Your task to perform on an android device: Open network settings Image 0: 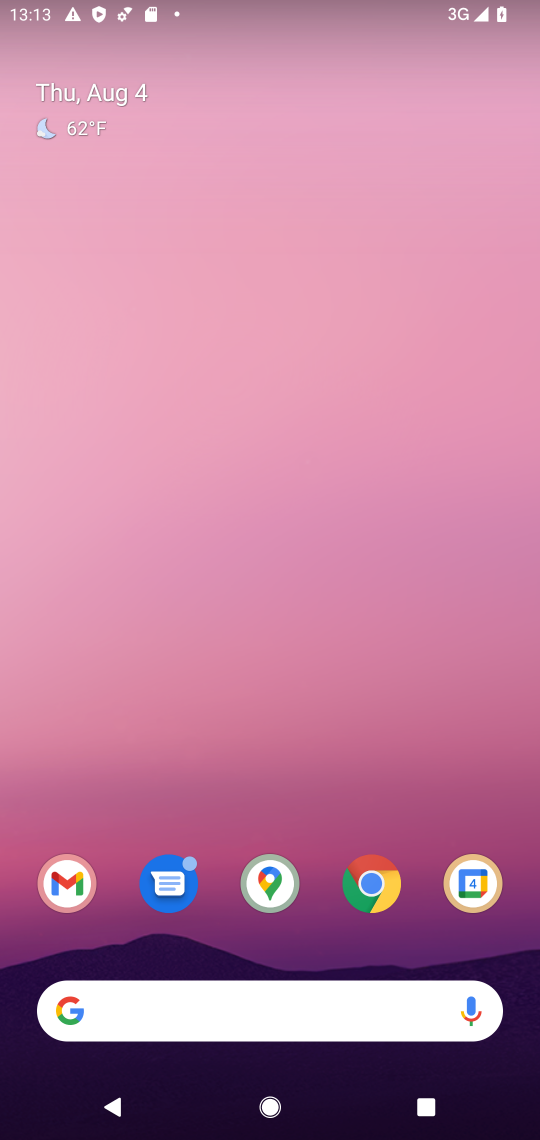
Step 0: drag from (250, 973) to (315, 2)
Your task to perform on an android device: Open network settings Image 1: 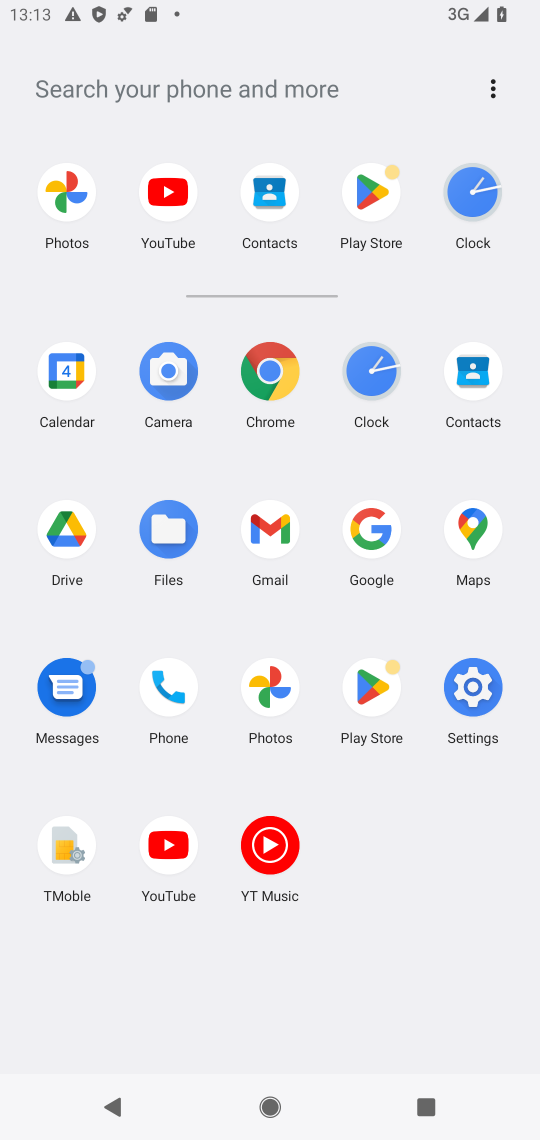
Step 1: drag from (278, 943) to (337, 245)
Your task to perform on an android device: Open network settings Image 2: 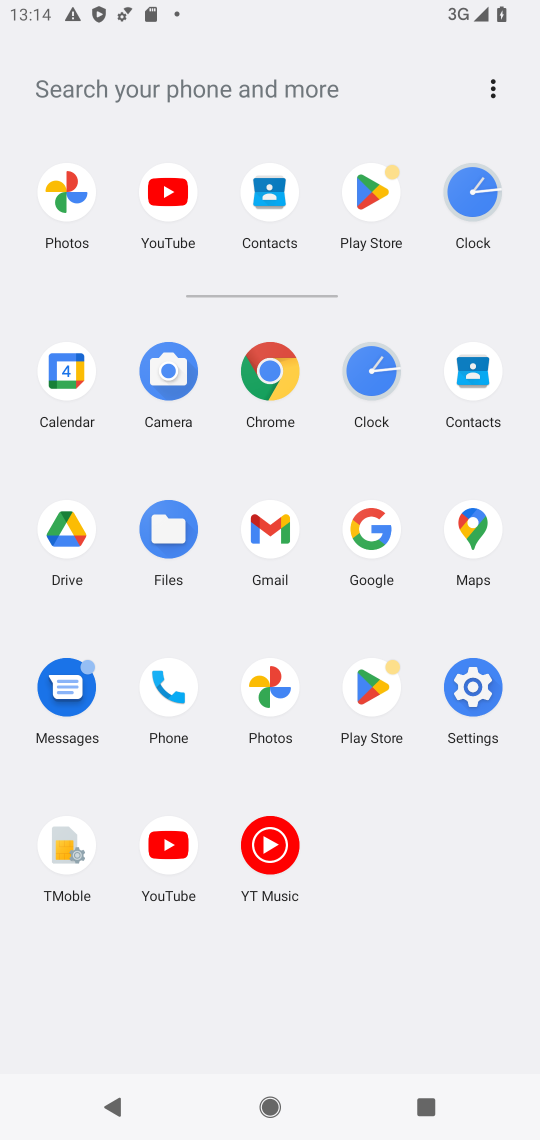
Step 2: click (469, 690)
Your task to perform on an android device: Open network settings Image 3: 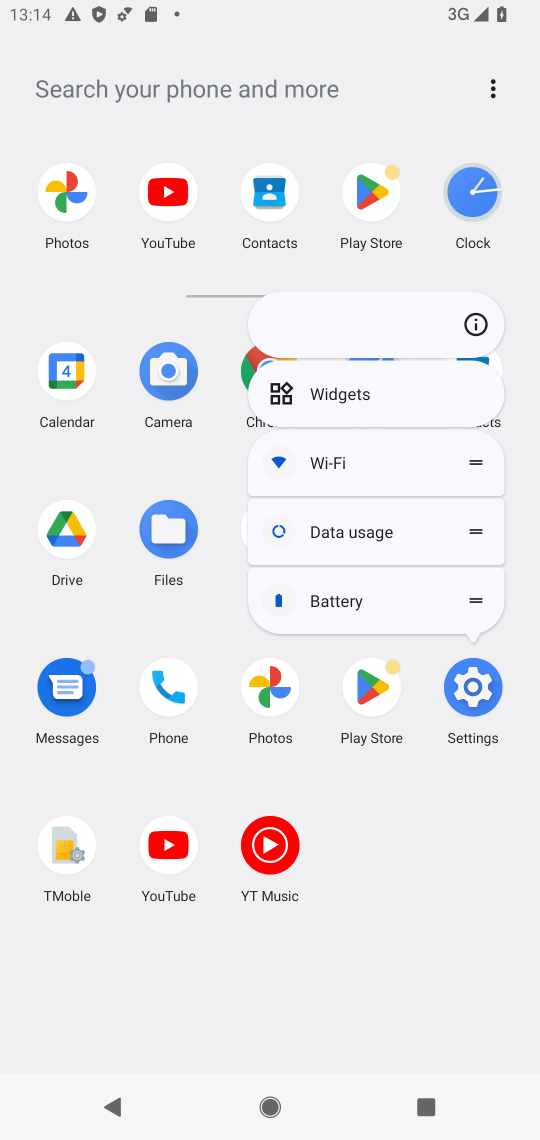
Step 3: click (475, 314)
Your task to perform on an android device: Open network settings Image 4: 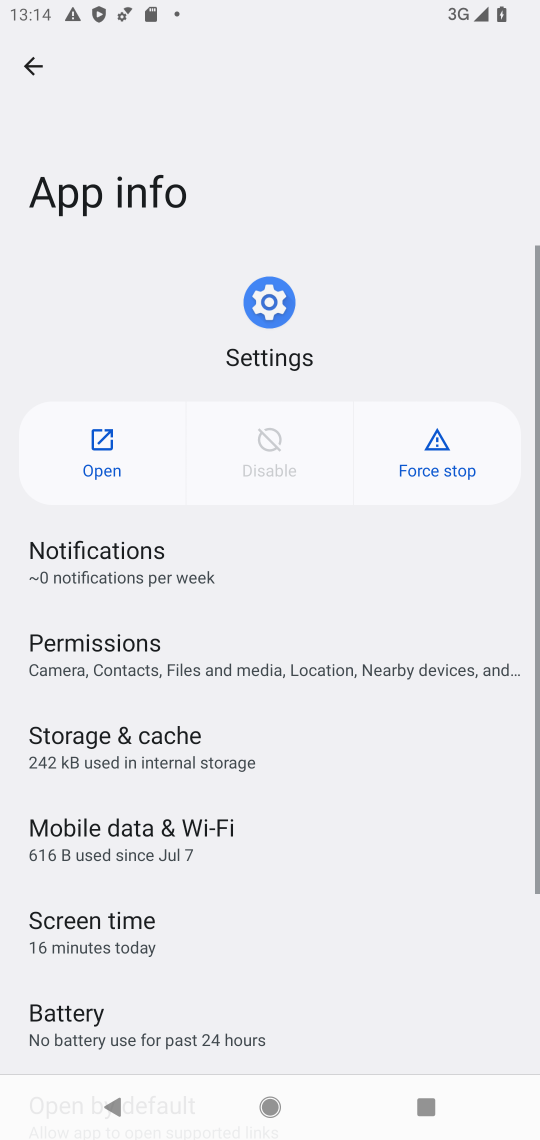
Step 4: click (80, 451)
Your task to perform on an android device: Open network settings Image 5: 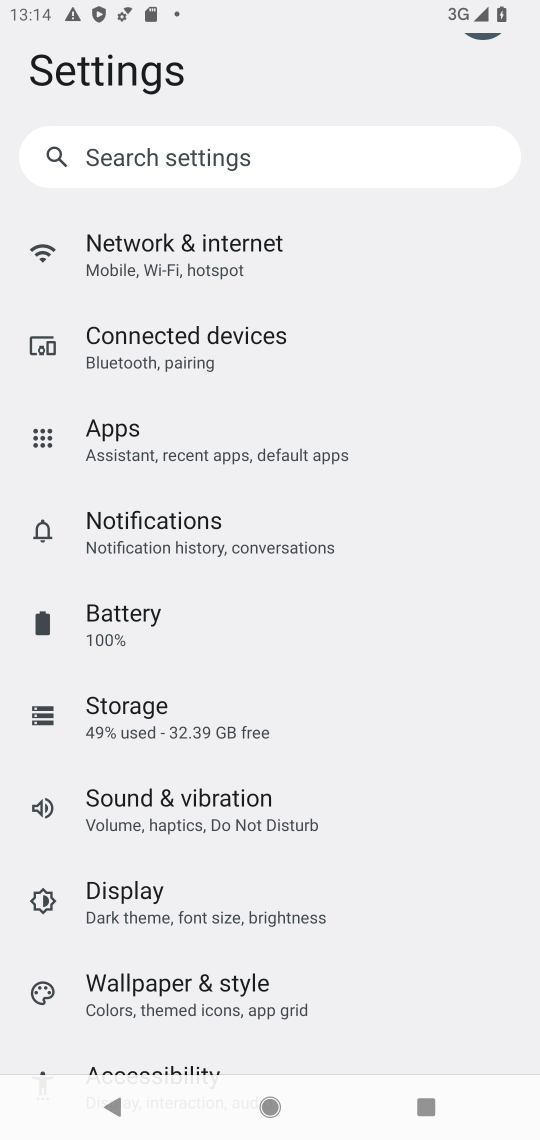
Step 5: drag from (289, 965) to (391, 417)
Your task to perform on an android device: Open network settings Image 6: 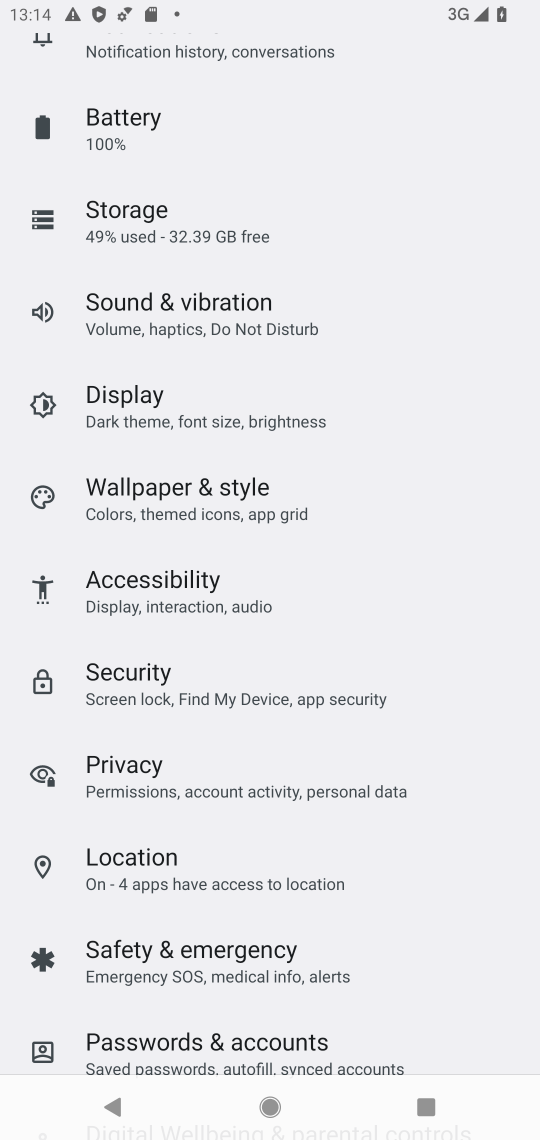
Step 6: drag from (265, 352) to (530, 903)
Your task to perform on an android device: Open network settings Image 7: 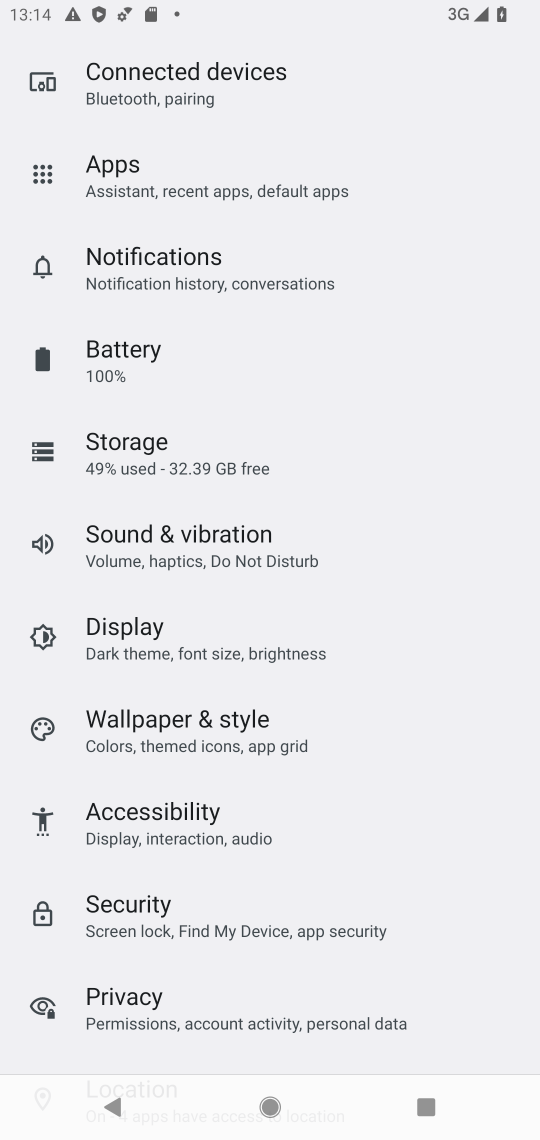
Step 7: drag from (195, 160) to (198, 881)
Your task to perform on an android device: Open network settings Image 8: 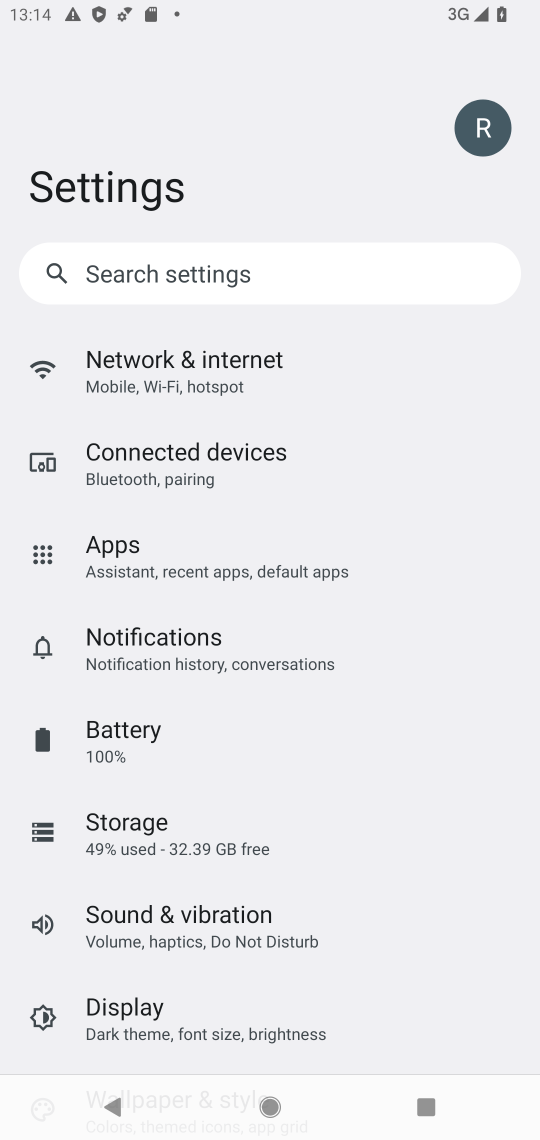
Step 8: click (192, 386)
Your task to perform on an android device: Open network settings Image 9: 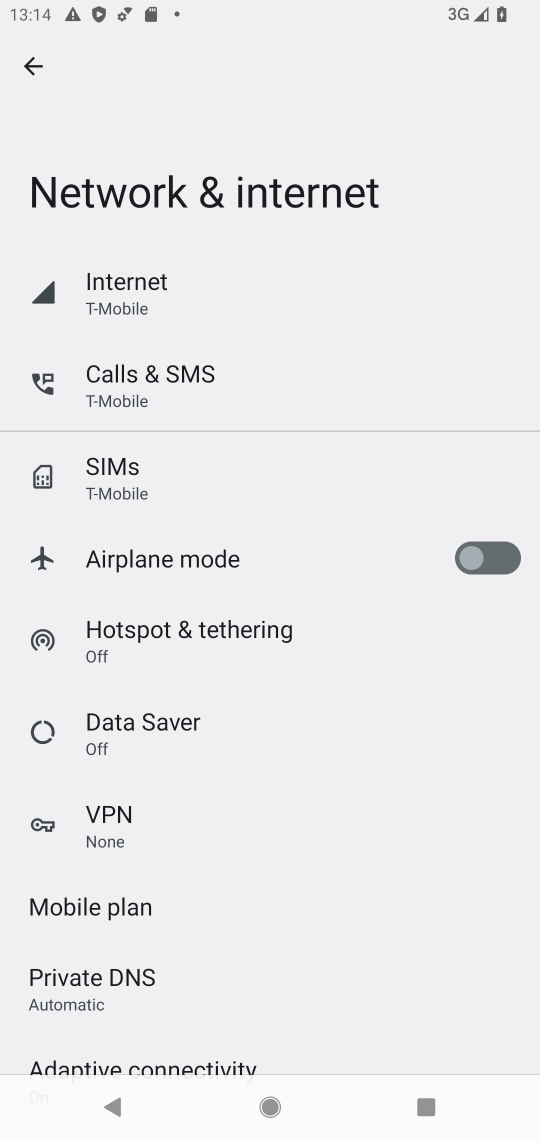
Step 9: task complete